Your task to perform on an android device: turn on airplane mode Image 0: 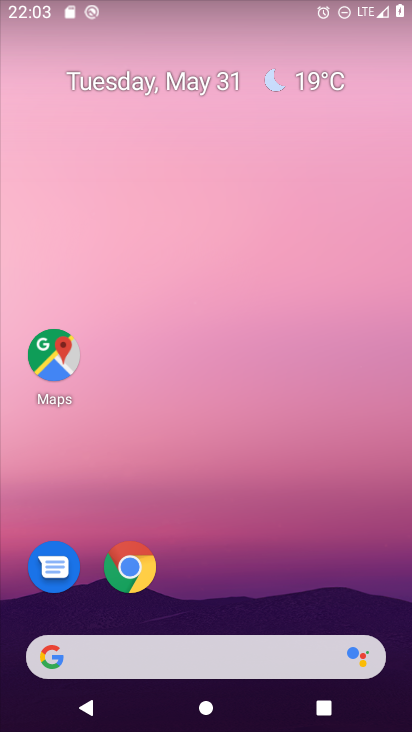
Step 0: press home button
Your task to perform on an android device: turn on airplane mode Image 1: 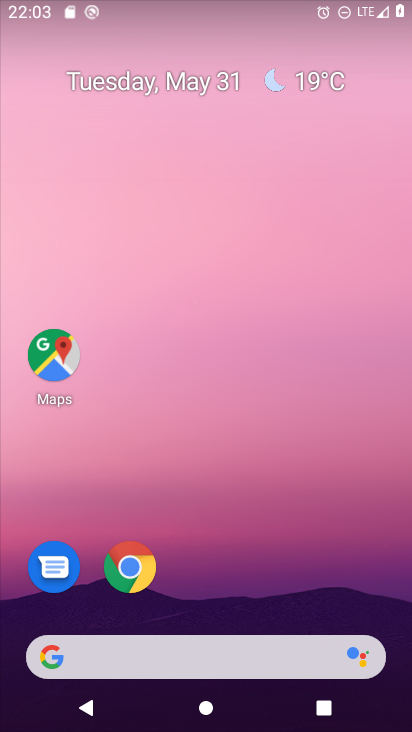
Step 1: drag from (192, 635) to (206, 274)
Your task to perform on an android device: turn on airplane mode Image 2: 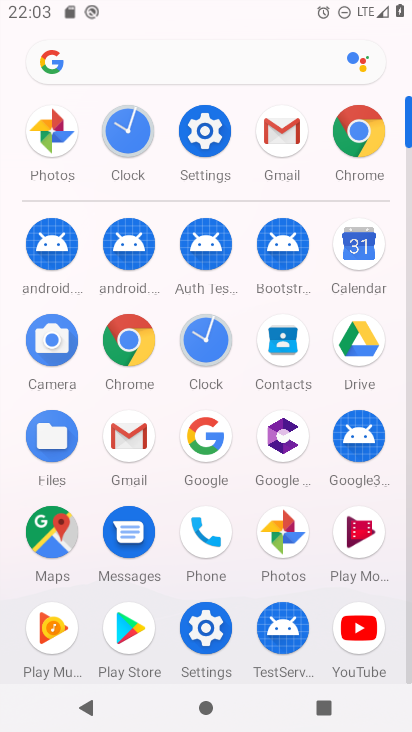
Step 2: click (190, 122)
Your task to perform on an android device: turn on airplane mode Image 3: 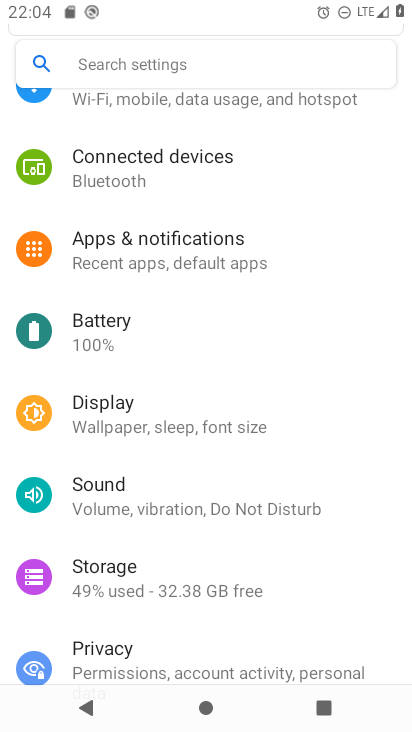
Step 3: drag from (212, 122) to (211, 547)
Your task to perform on an android device: turn on airplane mode Image 4: 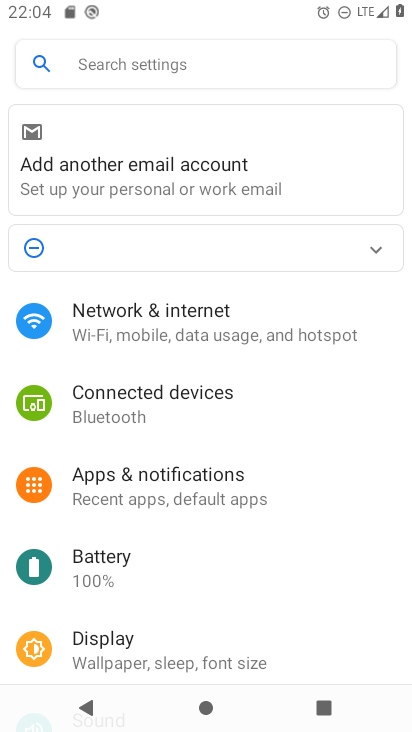
Step 4: click (172, 326)
Your task to perform on an android device: turn on airplane mode Image 5: 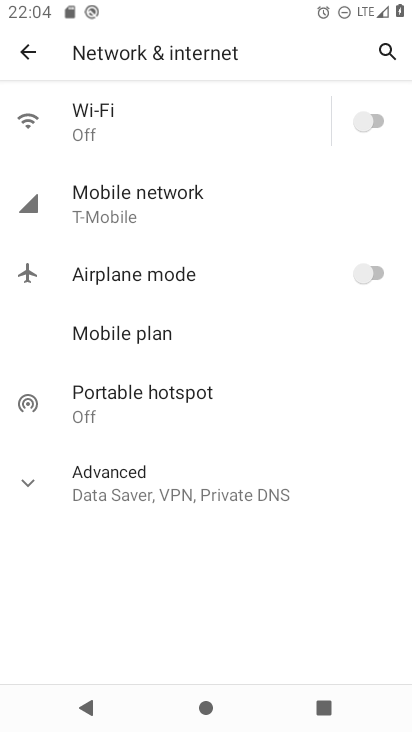
Step 5: click (377, 270)
Your task to perform on an android device: turn on airplane mode Image 6: 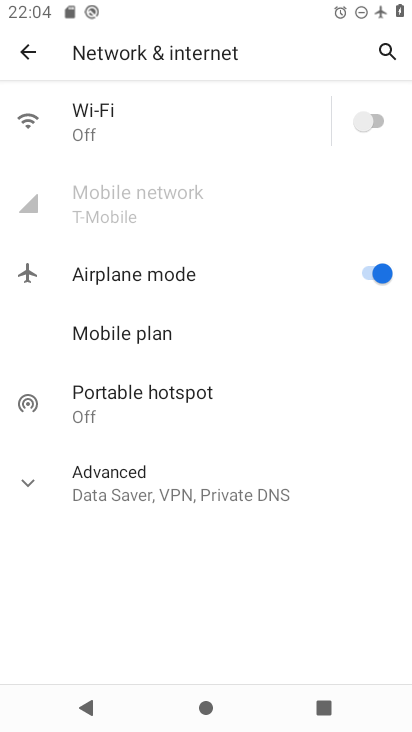
Step 6: task complete